Your task to perform on an android device: change the clock display to digital Image 0: 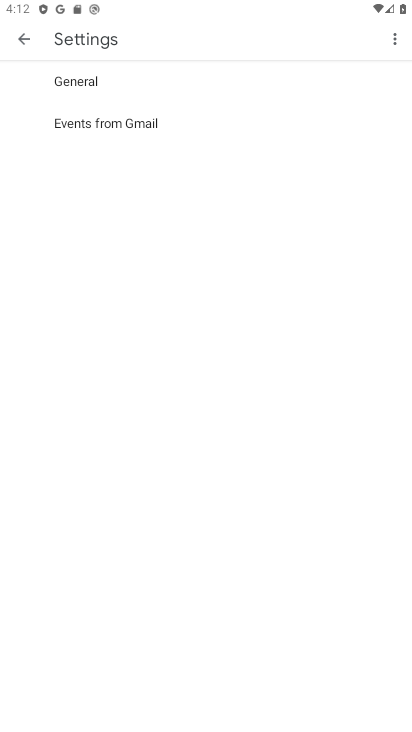
Step 0: press home button
Your task to perform on an android device: change the clock display to digital Image 1: 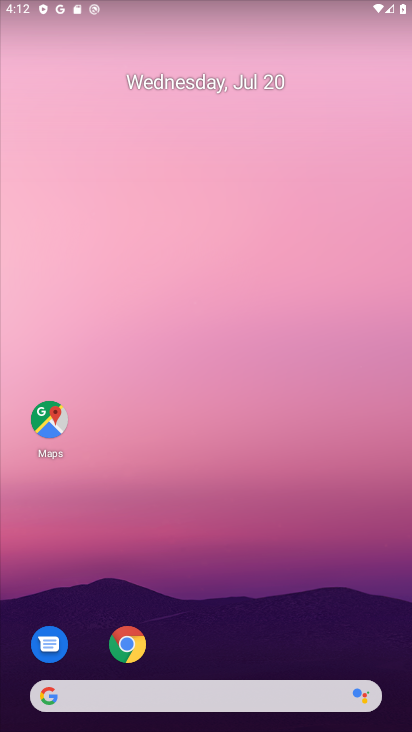
Step 1: press home button
Your task to perform on an android device: change the clock display to digital Image 2: 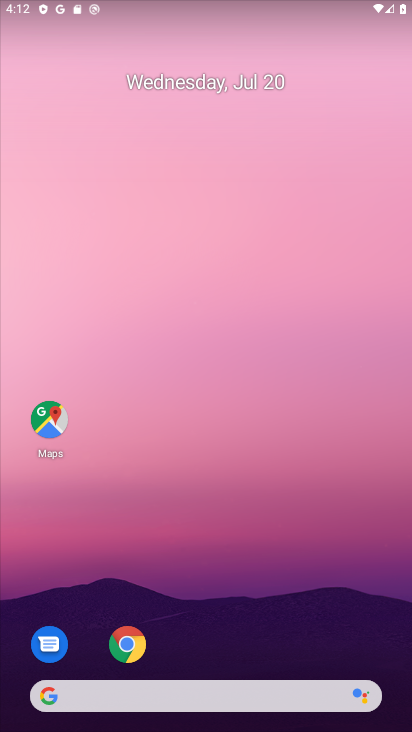
Step 2: drag from (277, 587) to (288, 1)
Your task to perform on an android device: change the clock display to digital Image 3: 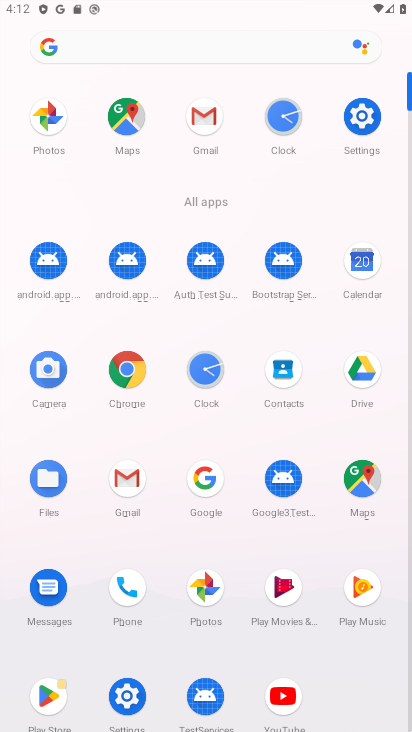
Step 3: click (280, 107)
Your task to perform on an android device: change the clock display to digital Image 4: 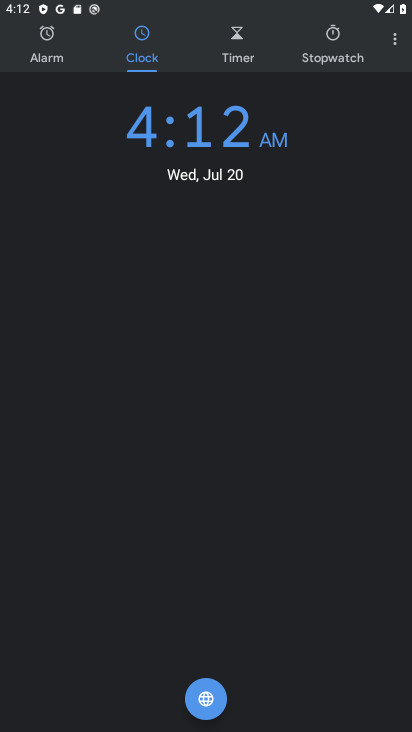
Step 4: click (396, 41)
Your task to perform on an android device: change the clock display to digital Image 5: 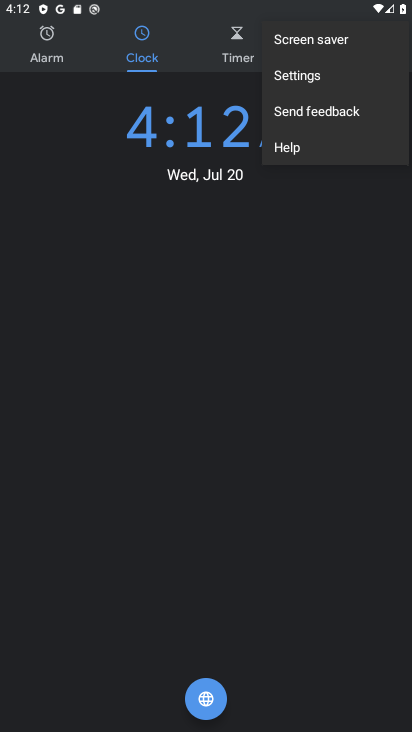
Step 5: click (292, 74)
Your task to perform on an android device: change the clock display to digital Image 6: 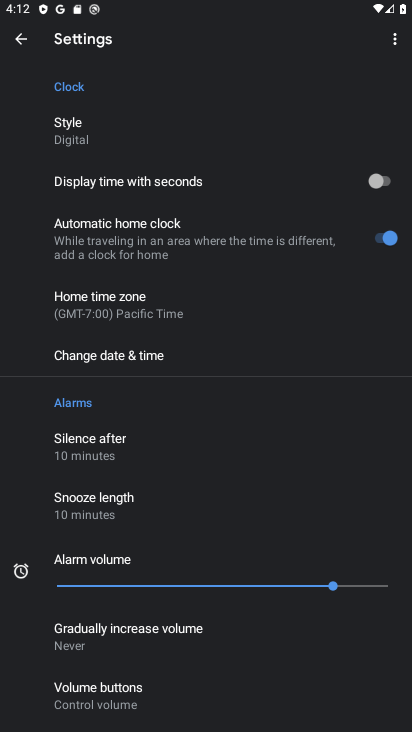
Step 6: click (84, 129)
Your task to perform on an android device: change the clock display to digital Image 7: 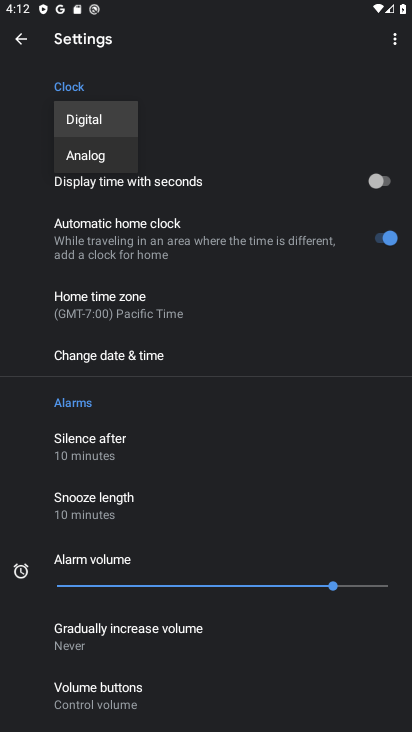
Step 7: task complete